Your task to perform on an android device: Open the calendar and show me this week's events? Image 0: 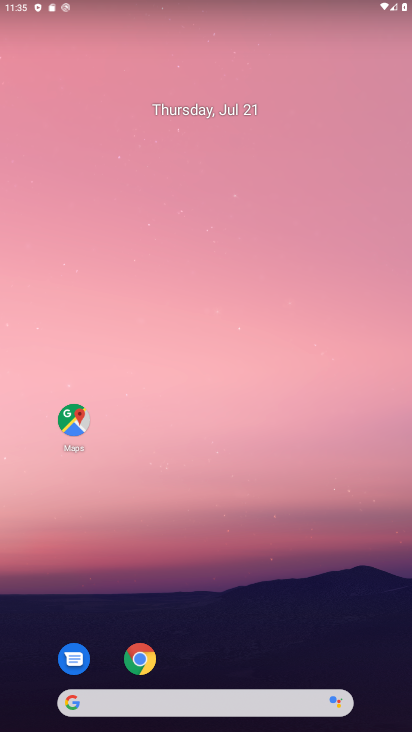
Step 0: click (191, 117)
Your task to perform on an android device: Open the calendar and show me this week's events? Image 1: 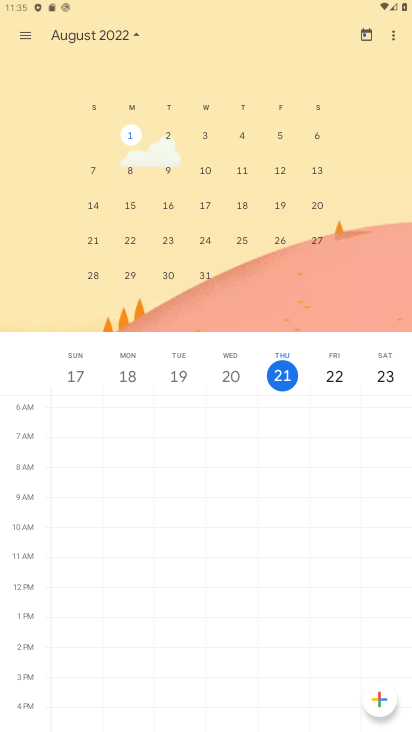
Step 1: drag from (42, 221) to (381, 266)
Your task to perform on an android device: Open the calendar and show me this week's events? Image 2: 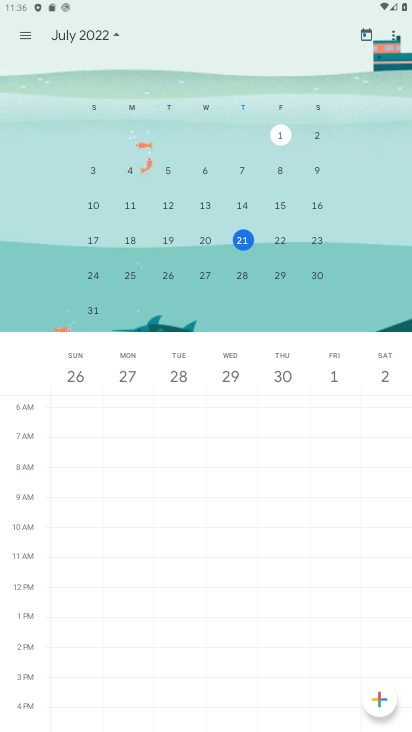
Step 2: click (20, 41)
Your task to perform on an android device: Open the calendar and show me this week's events? Image 3: 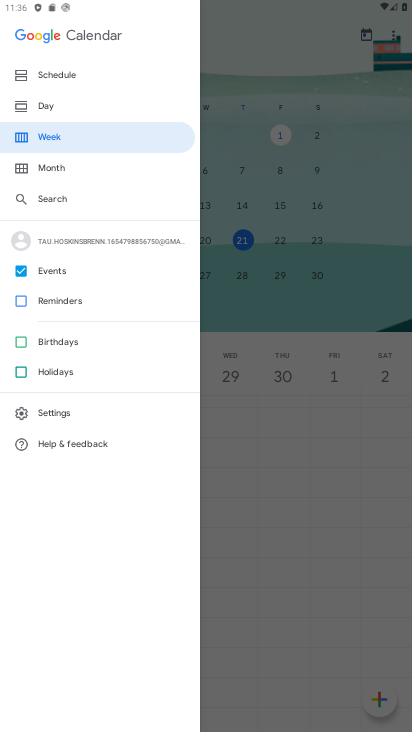
Step 3: click (344, 257)
Your task to perform on an android device: Open the calendar and show me this week's events? Image 4: 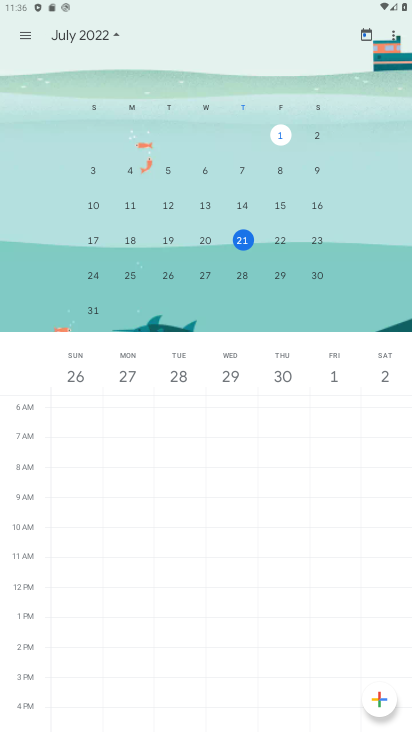
Step 4: task complete